Your task to perform on an android device: open app "TextNow: Call + Text Unlimited" (install if not already installed) Image 0: 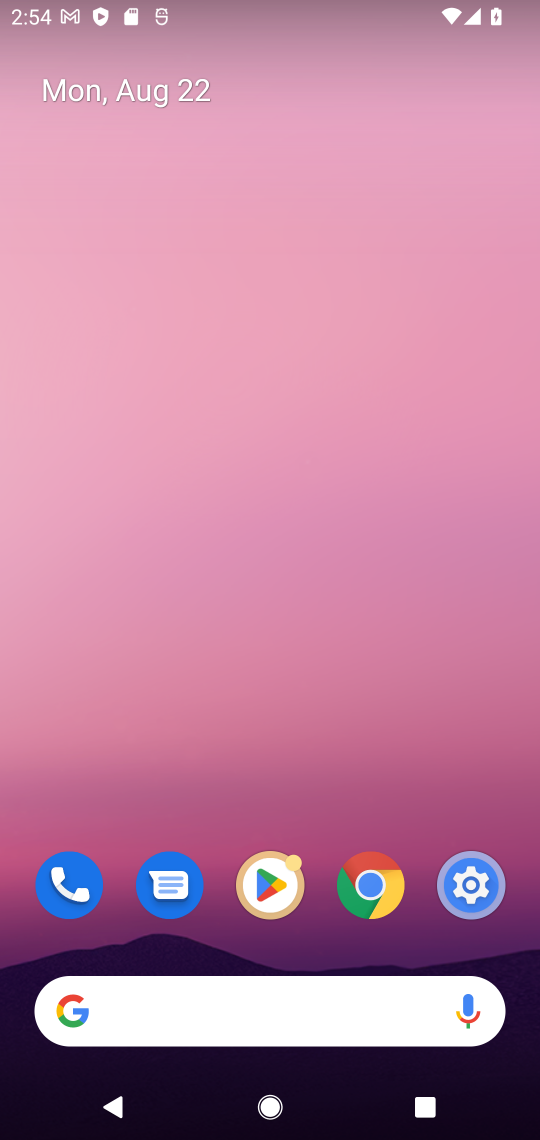
Step 0: drag from (333, 804) to (348, 167)
Your task to perform on an android device: open app "TextNow: Call + Text Unlimited" (install if not already installed) Image 1: 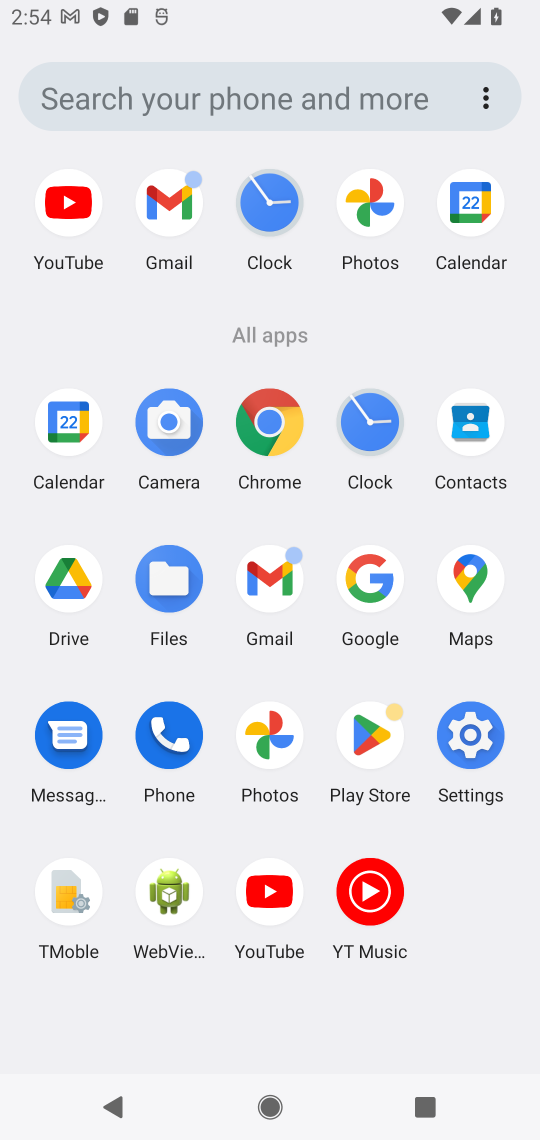
Step 1: click (362, 730)
Your task to perform on an android device: open app "TextNow: Call + Text Unlimited" (install if not already installed) Image 2: 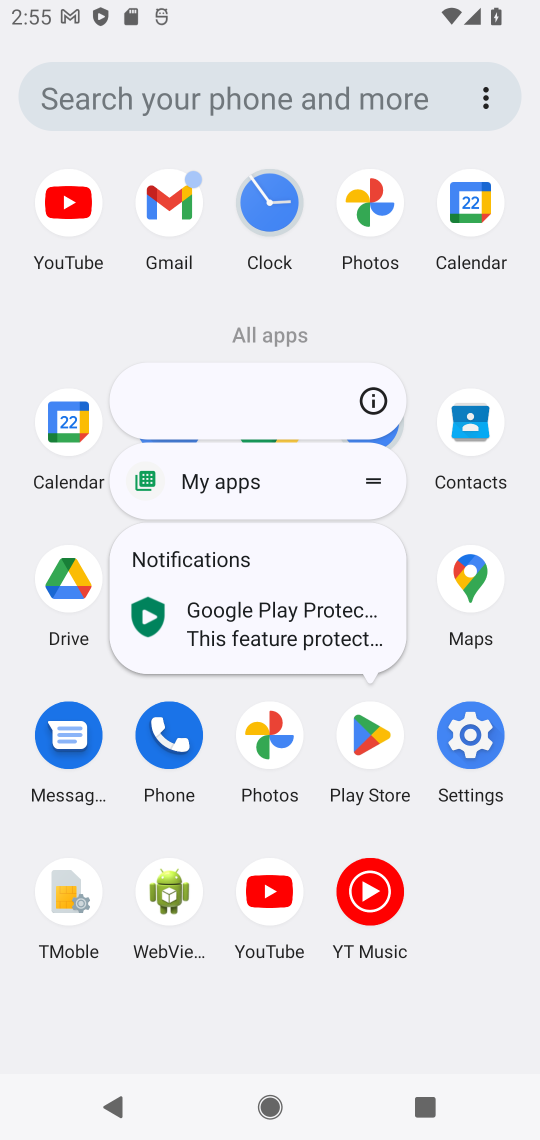
Step 2: click (363, 729)
Your task to perform on an android device: open app "TextNow: Call + Text Unlimited" (install if not already installed) Image 3: 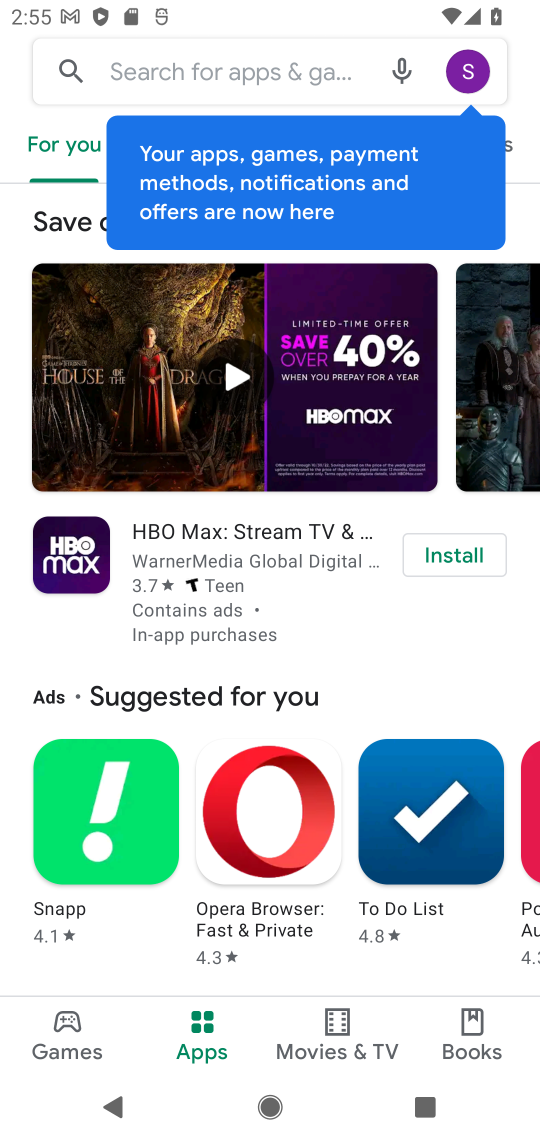
Step 3: click (157, 69)
Your task to perform on an android device: open app "TextNow: Call + Text Unlimited" (install if not already installed) Image 4: 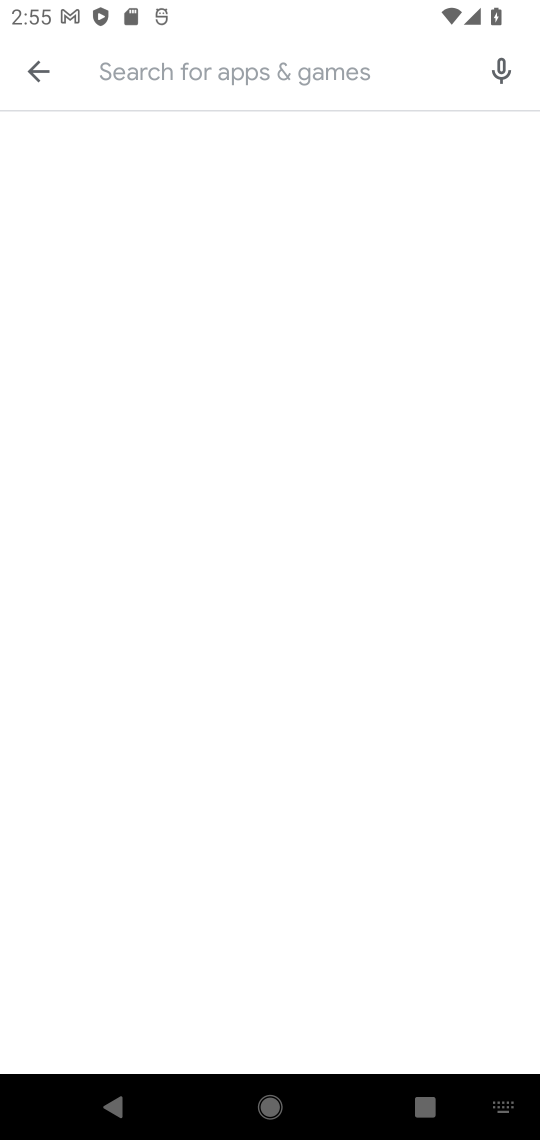
Step 4: type "TextNow: Call + Text Unlimited"
Your task to perform on an android device: open app "TextNow: Call + Text Unlimited" (install if not already installed) Image 5: 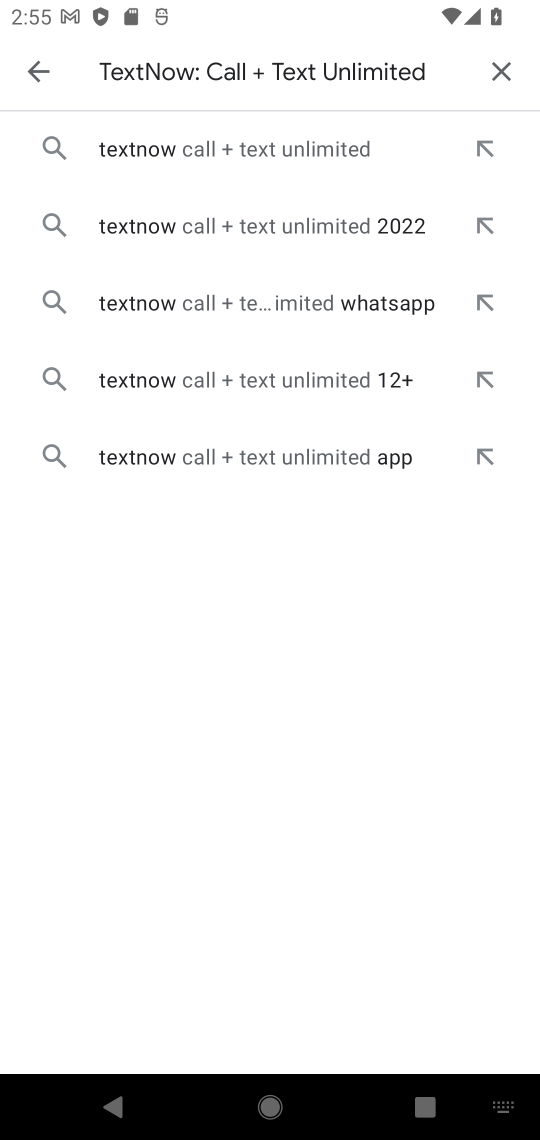
Step 5: click (240, 150)
Your task to perform on an android device: open app "TextNow: Call + Text Unlimited" (install if not already installed) Image 6: 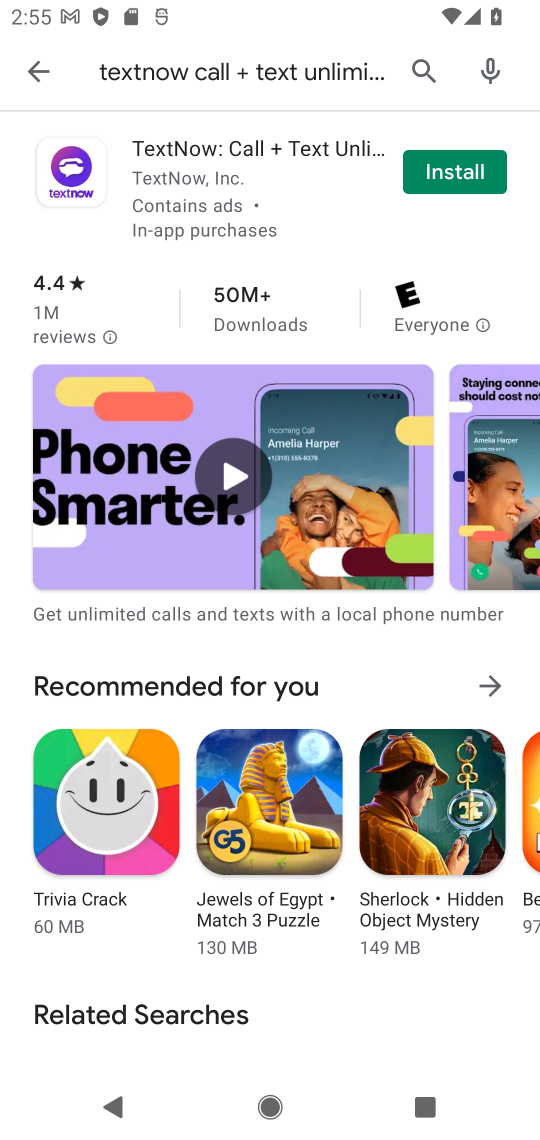
Step 6: click (455, 172)
Your task to perform on an android device: open app "TextNow: Call + Text Unlimited" (install if not already installed) Image 7: 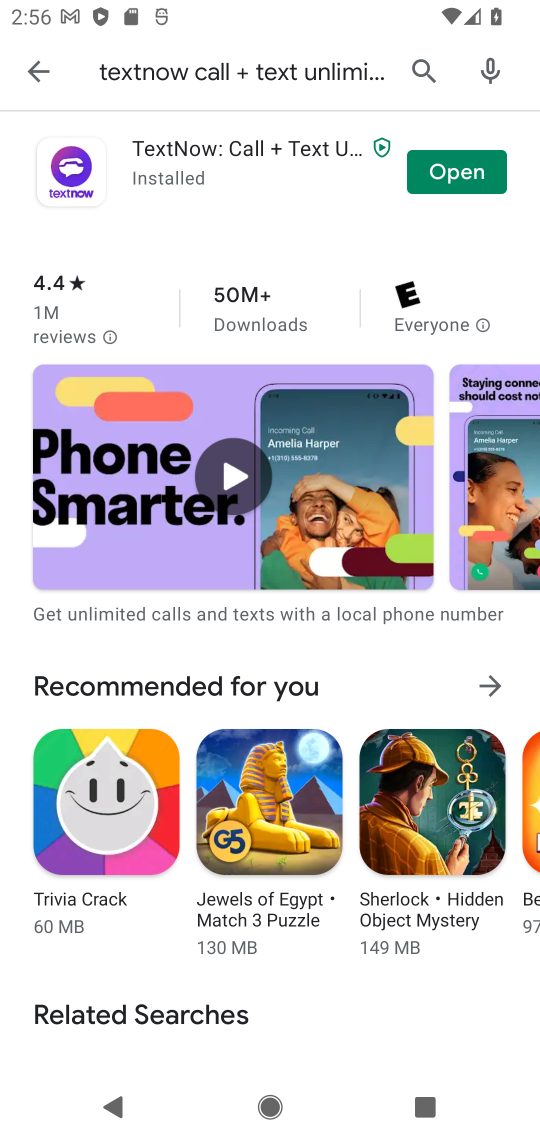
Step 7: click (460, 166)
Your task to perform on an android device: open app "TextNow: Call + Text Unlimited" (install if not already installed) Image 8: 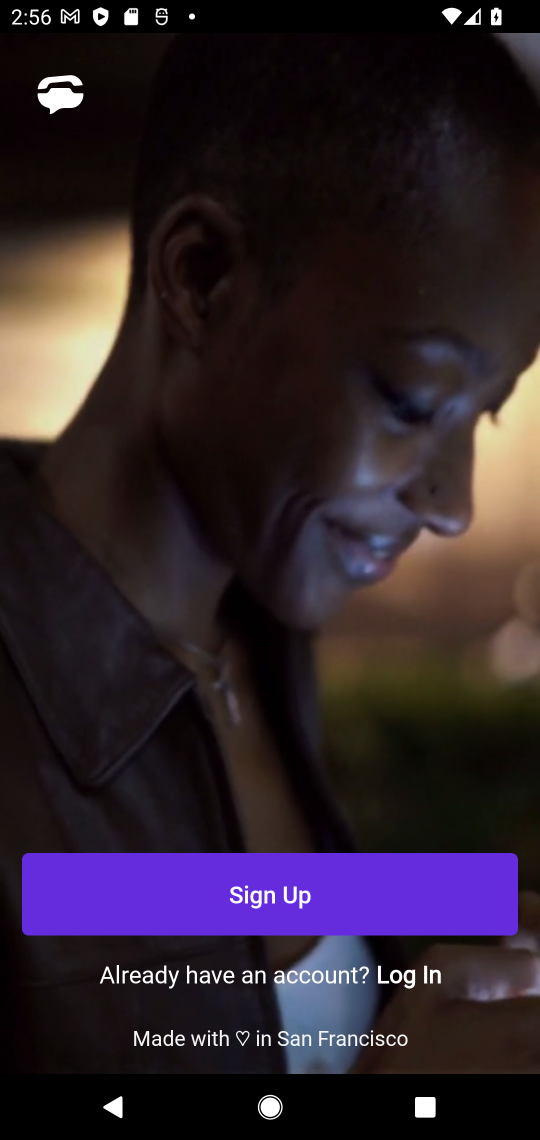
Step 8: click (281, 895)
Your task to perform on an android device: open app "TextNow: Call + Text Unlimited" (install if not already installed) Image 9: 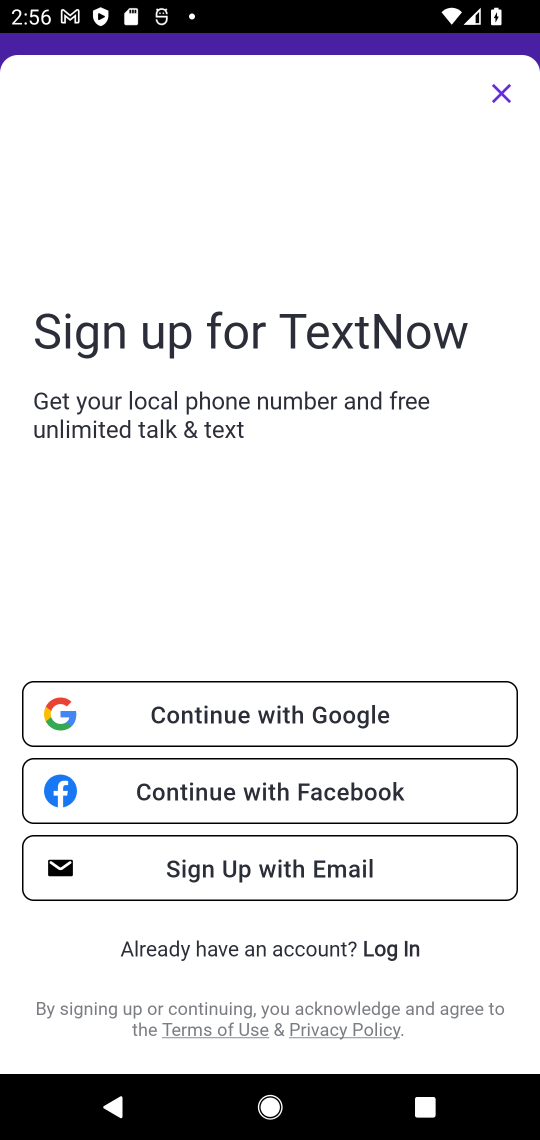
Step 9: click (267, 713)
Your task to perform on an android device: open app "TextNow: Call + Text Unlimited" (install if not already installed) Image 10: 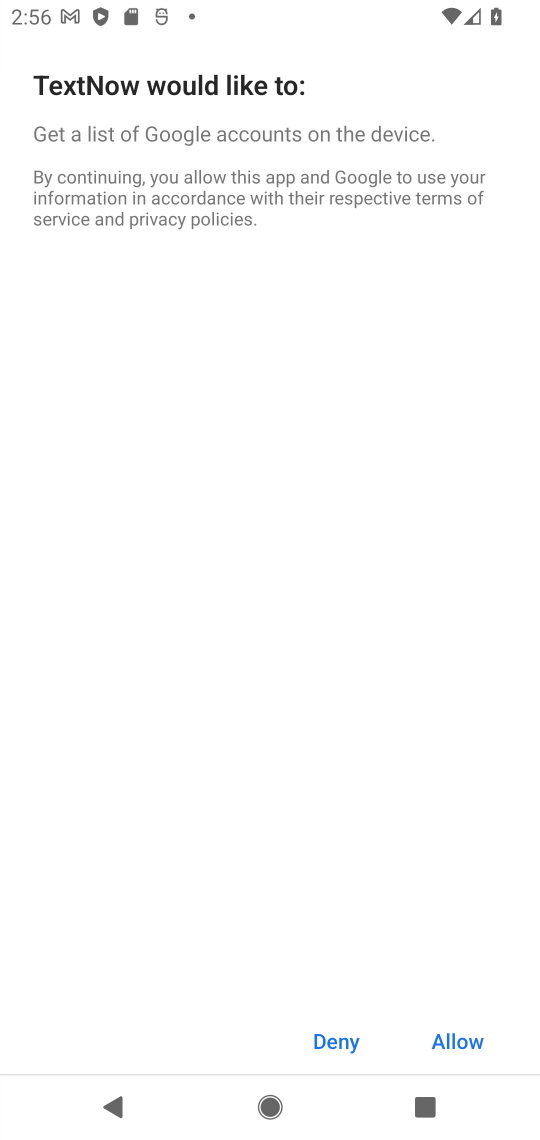
Step 10: click (464, 1026)
Your task to perform on an android device: open app "TextNow: Call + Text Unlimited" (install if not already installed) Image 11: 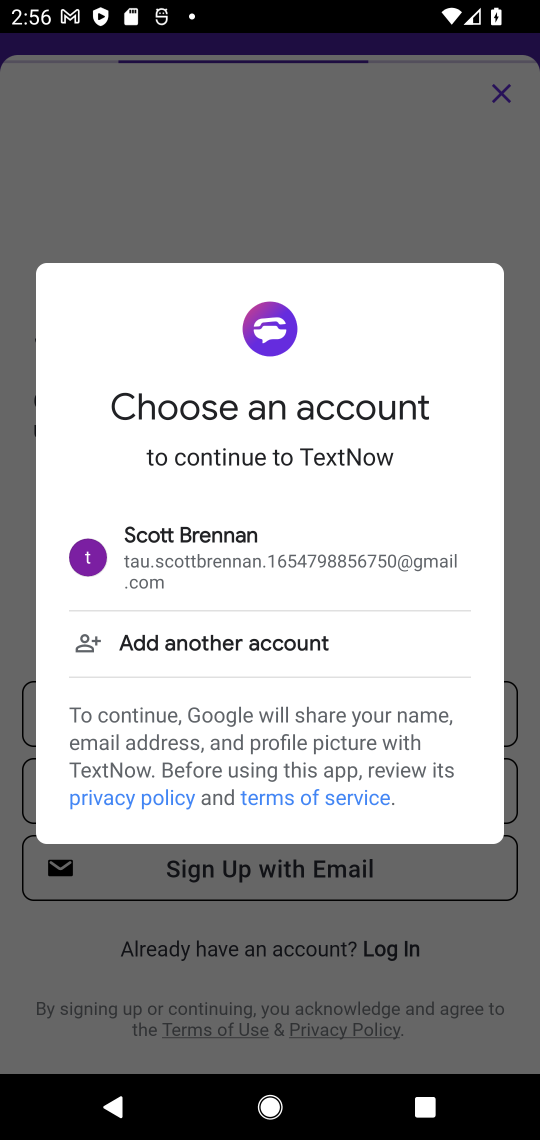
Step 11: click (258, 553)
Your task to perform on an android device: open app "TextNow: Call + Text Unlimited" (install if not already installed) Image 12: 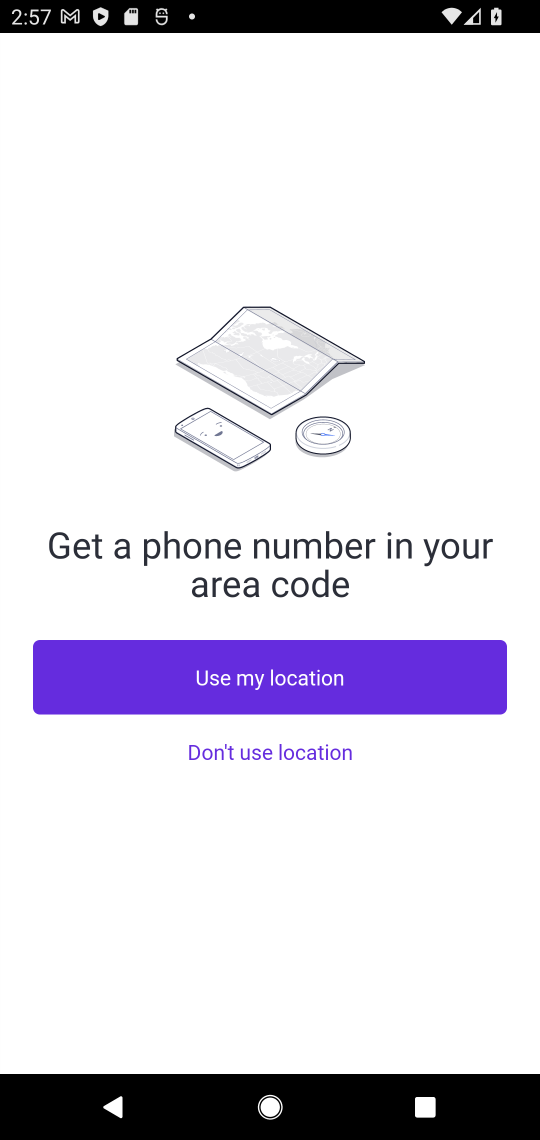
Step 12: click (267, 687)
Your task to perform on an android device: open app "TextNow: Call + Text Unlimited" (install if not already installed) Image 13: 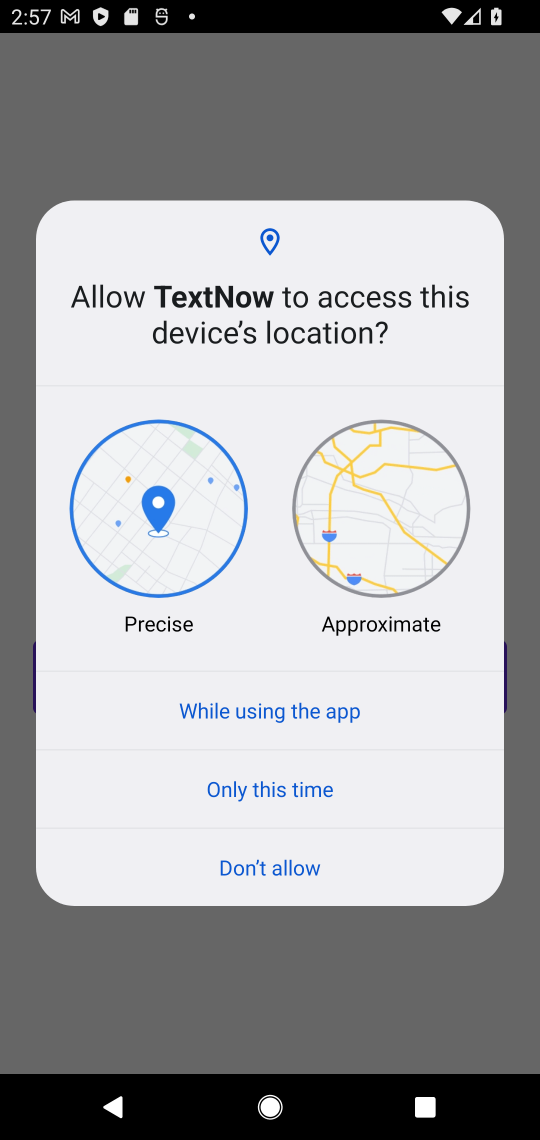
Step 13: click (282, 709)
Your task to perform on an android device: open app "TextNow: Call + Text Unlimited" (install if not already installed) Image 14: 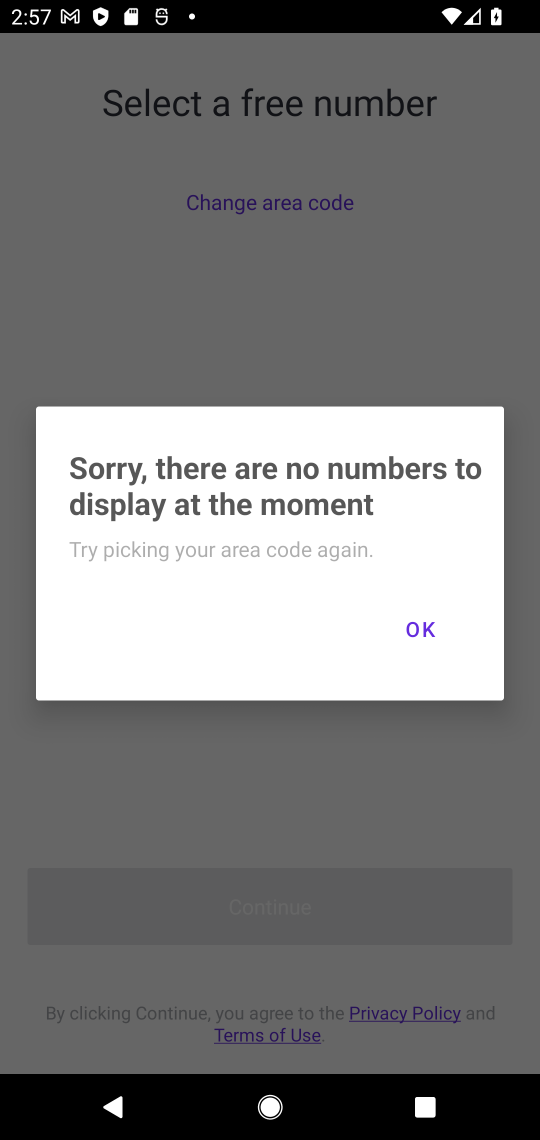
Step 14: click (421, 630)
Your task to perform on an android device: open app "TextNow: Call + Text Unlimited" (install if not already installed) Image 15: 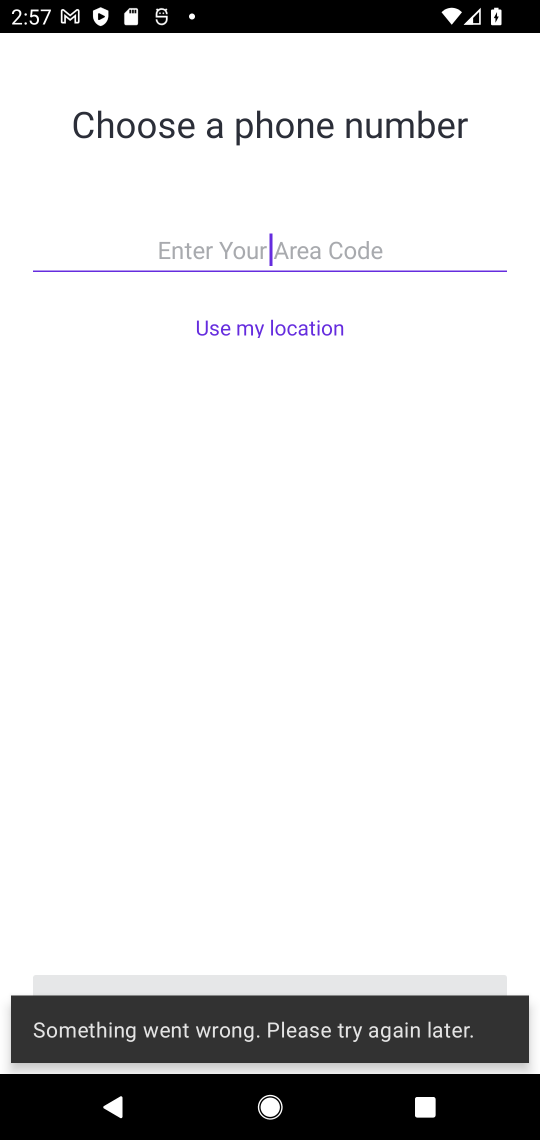
Step 15: task complete